Your task to perform on an android device: Go to eBay Image 0: 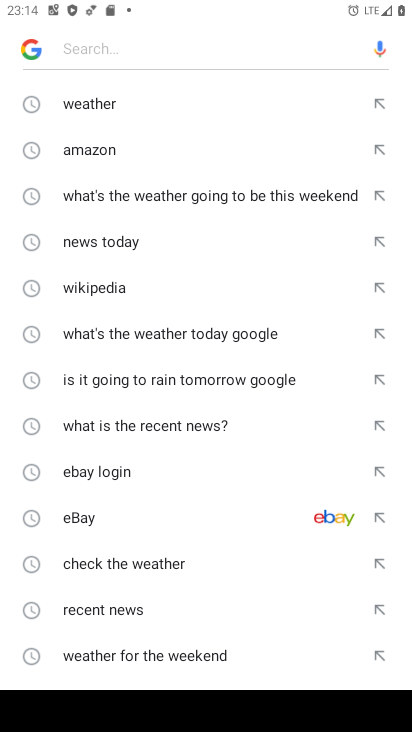
Step 0: click (111, 512)
Your task to perform on an android device: Go to eBay Image 1: 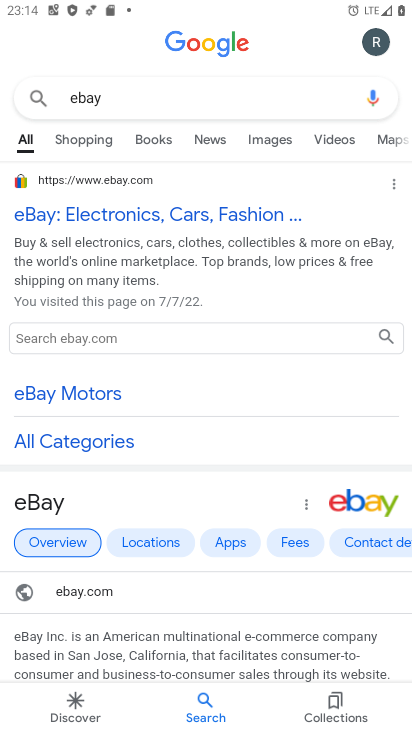
Step 1: click (49, 214)
Your task to perform on an android device: Go to eBay Image 2: 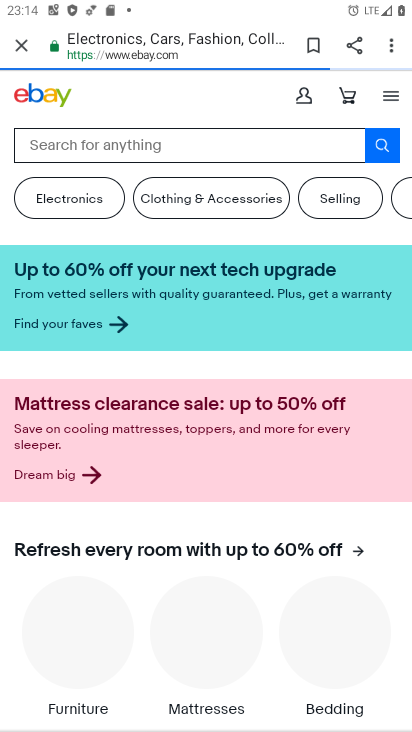
Step 2: task complete